Your task to perform on an android device: open wifi settings Image 0: 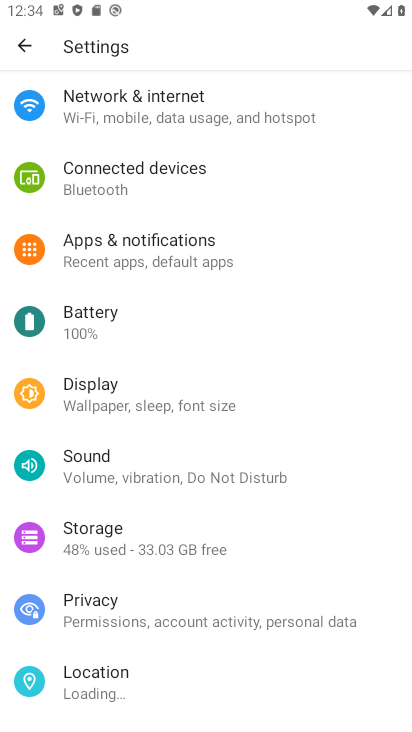
Step 0: click (135, 107)
Your task to perform on an android device: open wifi settings Image 1: 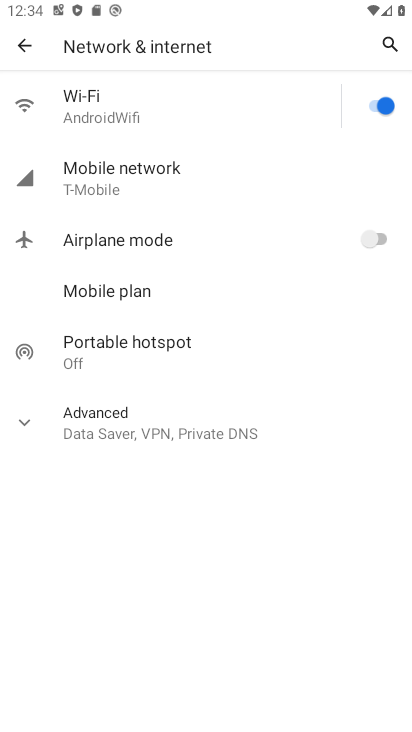
Step 1: task complete